Your task to perform on an android device: find which apps use the phone's location Image 0: 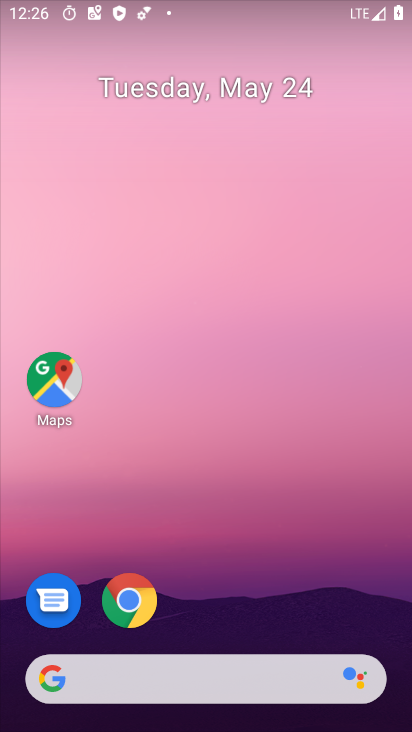
Step 0: drag from (291, 585) to (270, 65)
Your task to perform on an android device: find which apps use the phone's location Image 1: 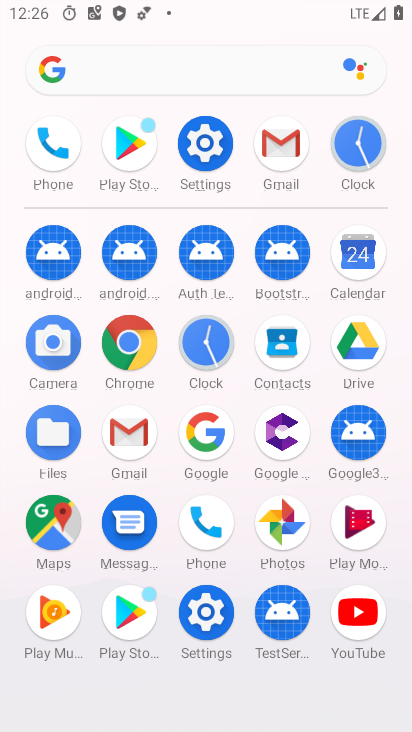
Step 1: click (188, 148)
Your task to perform on an android device: find which apps use the phone's location Image 2: 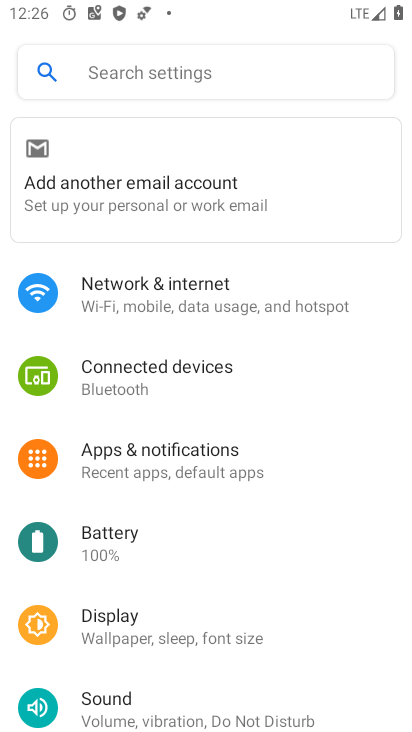
Step 2: drag from (175, 666) to (268, 182)
Your task to perform on an android device: find which apps use the phone's location Image 3: 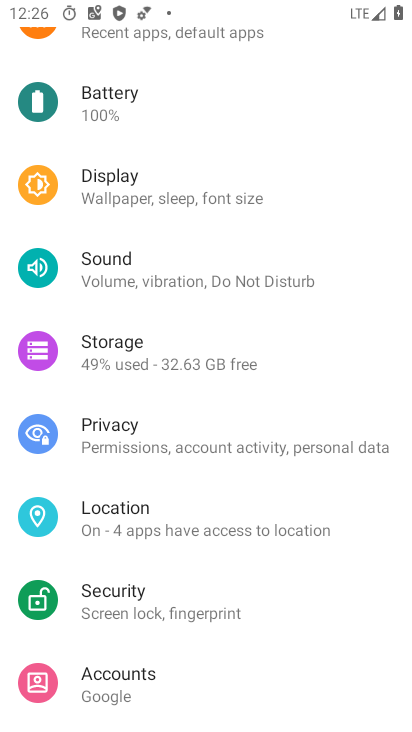
Step 3: click (169, 518)
Your task to perform on an android device: find which apps use the phone's location Image 4: 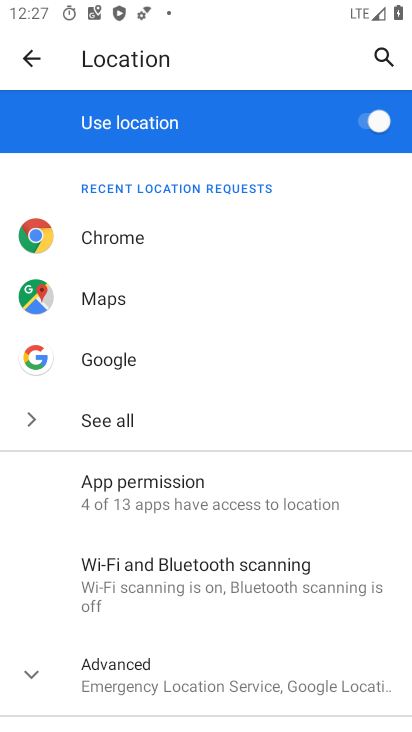
Step 4: click (145, 487)
Your task to perform on an android device: find which apps use the phone's location Image 5: 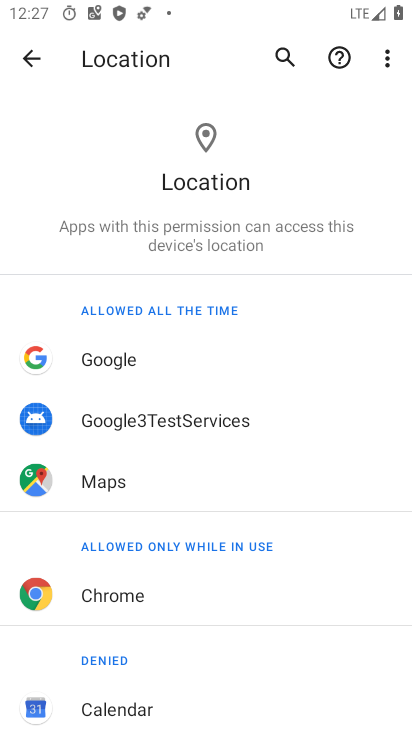
Step 5: task complete